Your task to perform on an android device: add a contact Image 0: 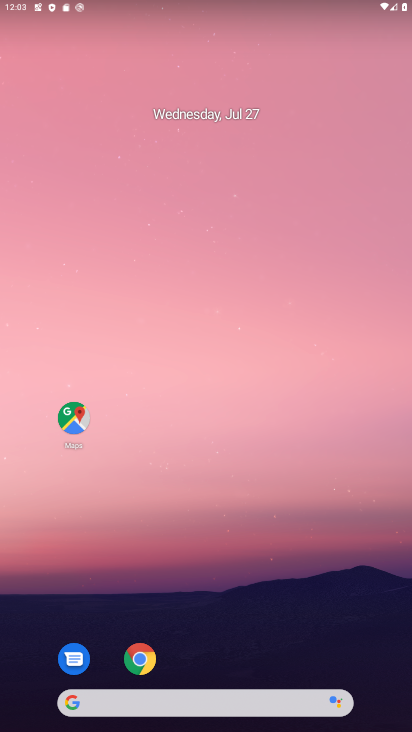
Step 0: press home button
Your task to perform on an android device: add a contact Image 1: 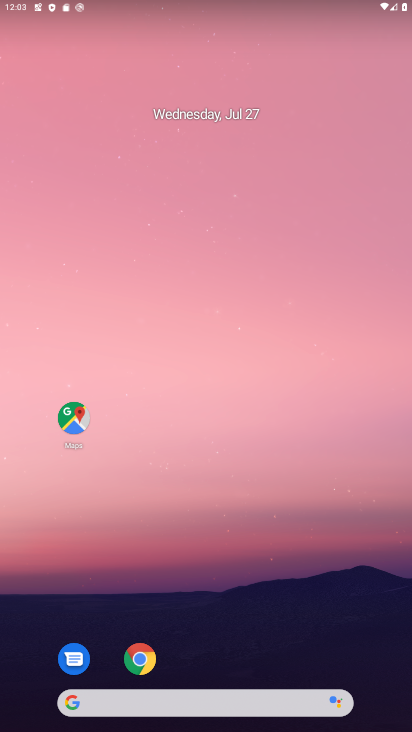
Step 1: drag from (212, 659) to (300, 85)
Your task to perform on an android device: add a contact Image 2: 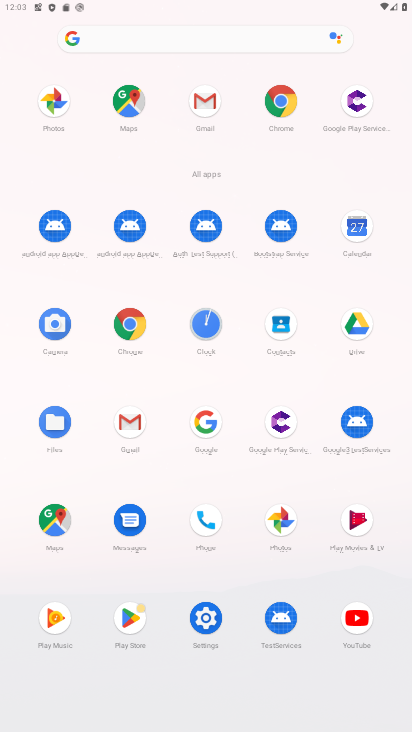
Step 2: click (277, 320)
Your task to perform on an android device: add a contact Image 3: 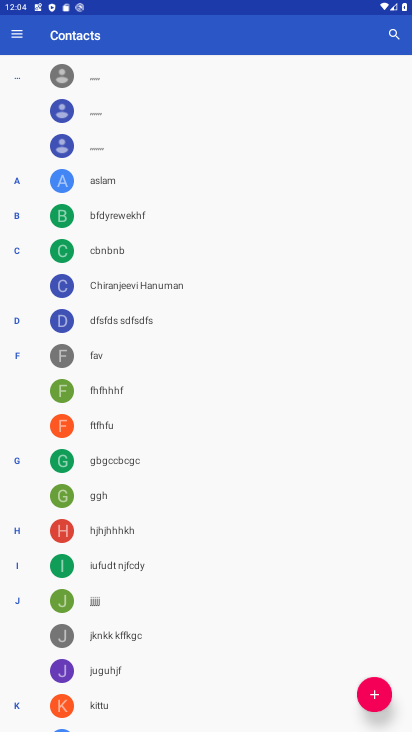
Step 3: click (374, 693)
Your task to perform on an android device: add a contact Image 4: 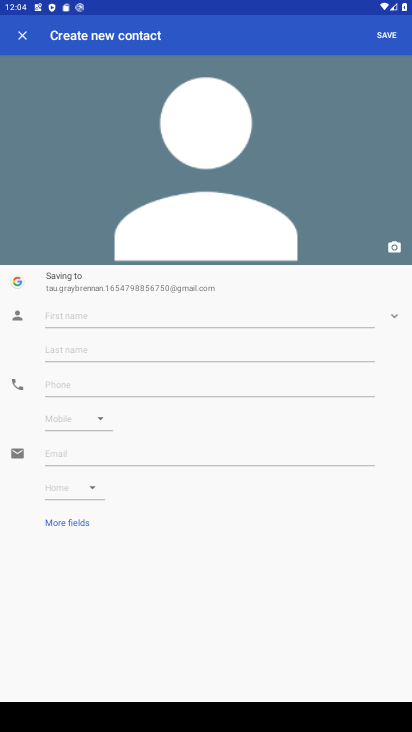
Step 4: click (56, 315)
Your task to perform on an android device: add a contact Image 5: 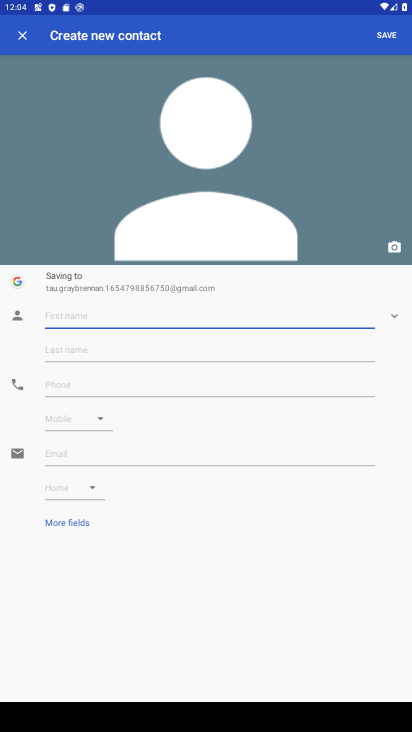
Step 5: type "htdkuy"
Your task to perform on an android device: add a contact Image 6: 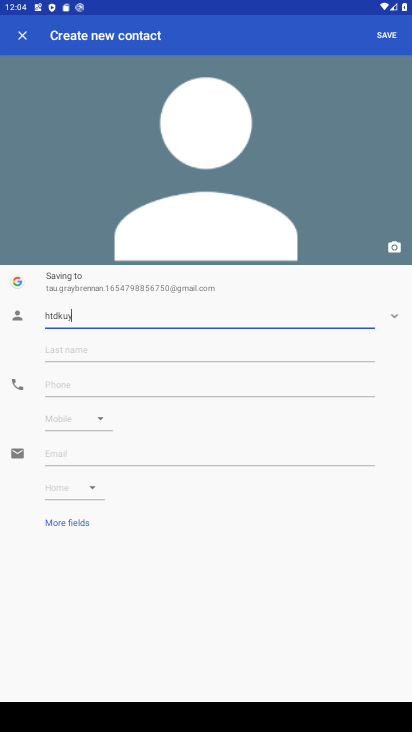
Step 6: click (381, 36)
Your task to perform on an android device: add a contact Image 7: 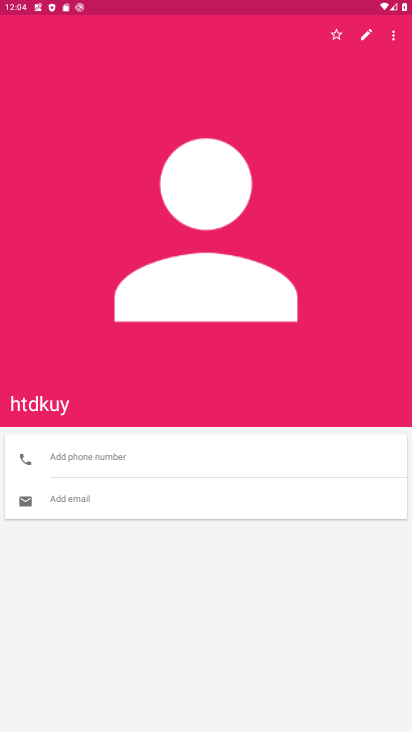
Step 7: task complete